Your task to perform on an android device: What's a good restaurant near me? Image 0: 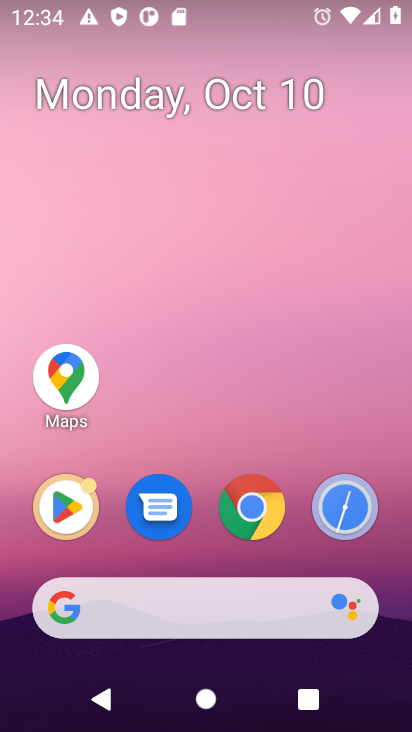
Step 0: click (256, 601)
Your task to perform on an android device: What's a good restaurant near me? Image 1: 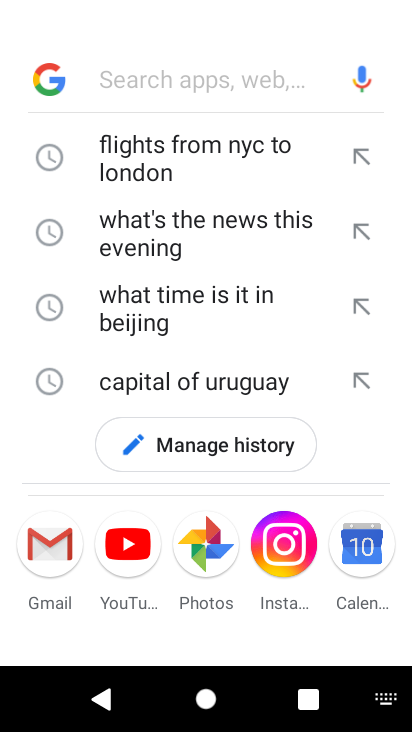
Step 1: type "What's a good restaurant near me"
Your task to perform on an android device: What's a good restaurant near me? Image 2: 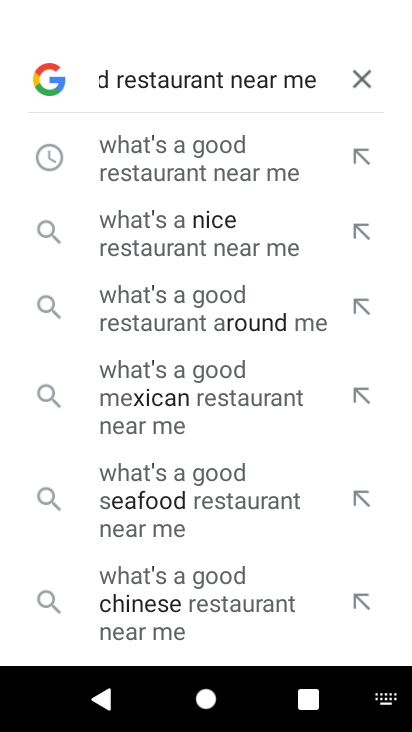
Step 2: press enter
Your task to perform on an android device: What's a good restaurant near me? Image 3: 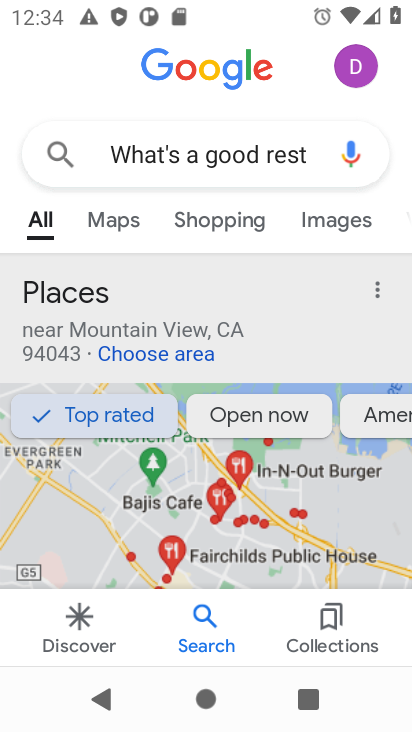
Step 3: task complete